Your task to perform on an android device: turn on sleep mode Image 0: 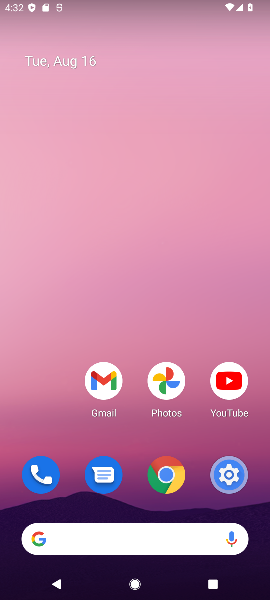
Step 0: drag from (213, 492) to (110, 0)
Your task to perform on an android device: turn on sleep mode Image 1: 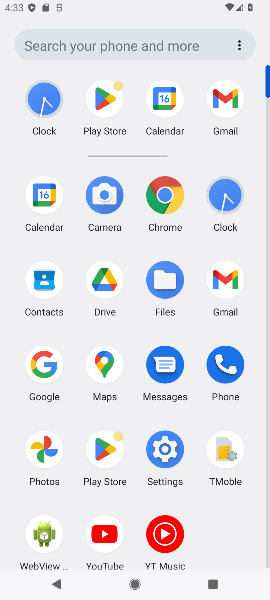
Step 1: click (158, 457)
Your task to perform on an android device: turn on sleep mode Image 2: 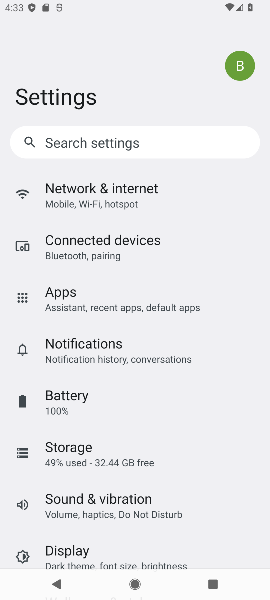
Step 2: task complete